Your task to perform on an android device: Search for Italian restaurants on Maps Image 0: 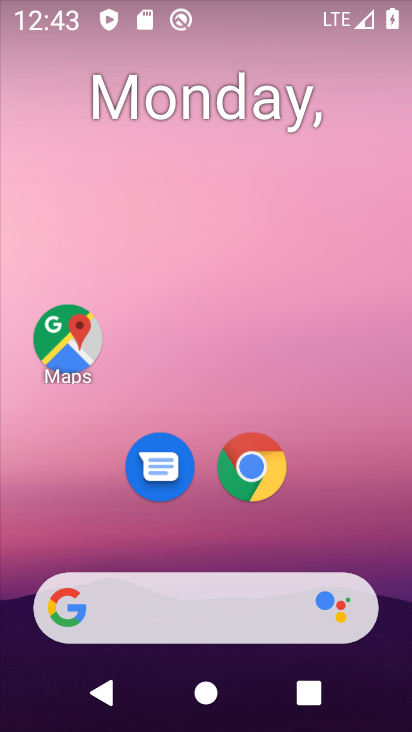
Step 0: click (66, 338)
Your task to perform on an android device: Search for Italian restaurants on Maps Image 1: 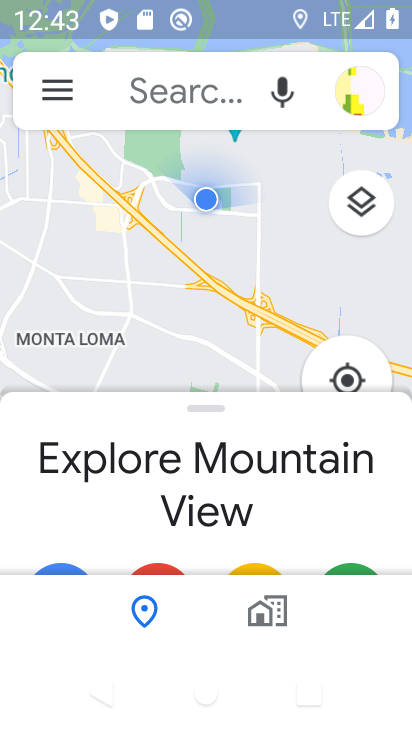
Step 1: click (176, 87)
Your task to perform on an android device: Search for Italian restaurants on Maps Image 2: 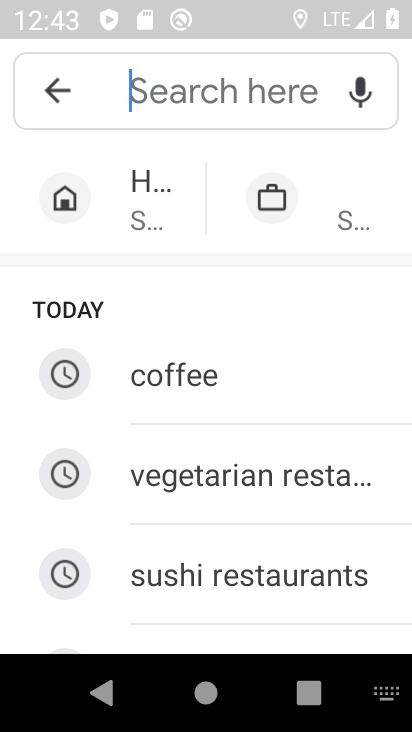
Step 2: type "italian restaurants"
Your task to perform on an android device: Search for Italian restaurants on Maps Image 3: 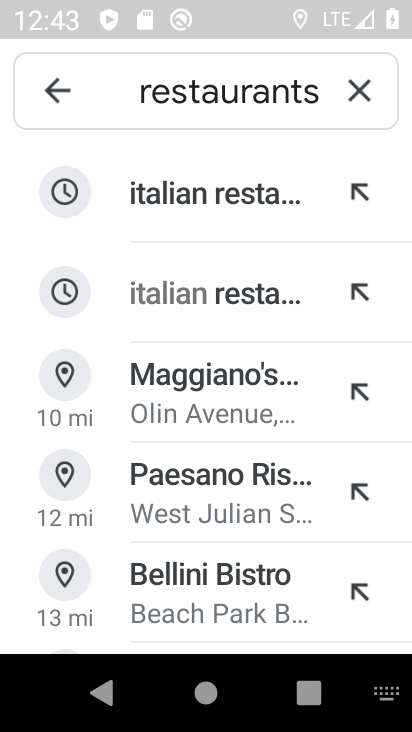
Step 3: click (172, 173)
Your task to perform on an android device: Search for Italian restaurants on Maps Image 4: 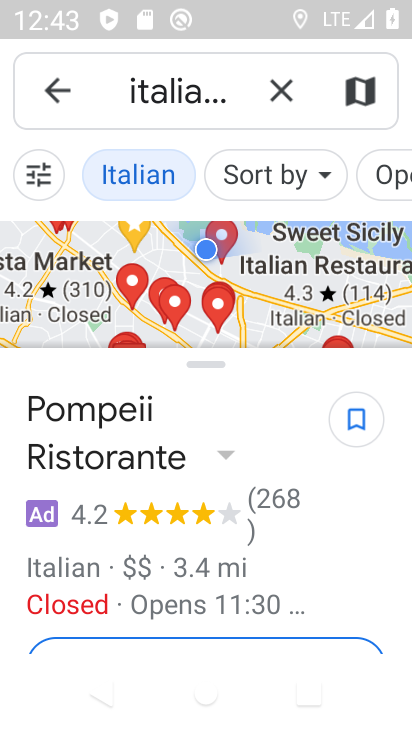
Step 4: task complete